Your task to perform on an android device: add a contact Image 0: 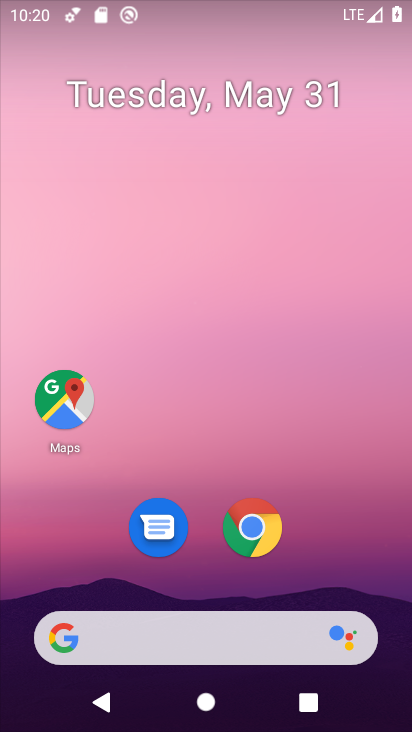
Step 0: drag from (351, 592) to (309, 16)
Your task to perform on an android device: add a contact Image 1: 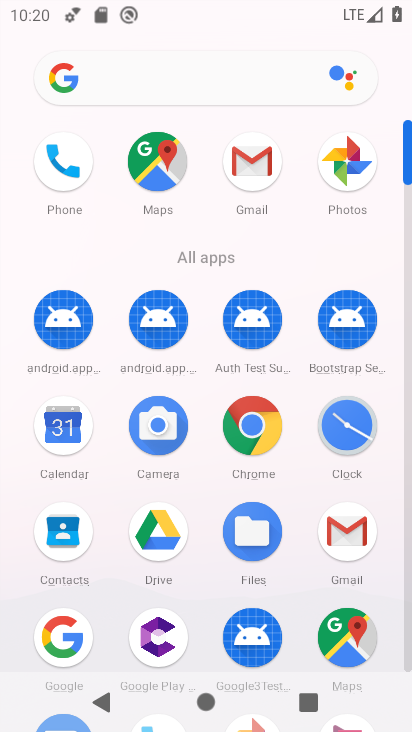
Step 1: click (66, 533)
Your task to perform on an android device: add a contact Image 2: 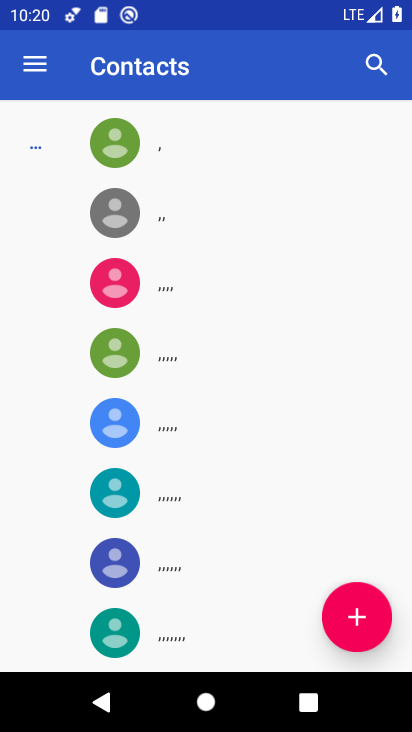
Step 2: click (359, 640)
Your task to perform on an android device: add a contact Image 3: 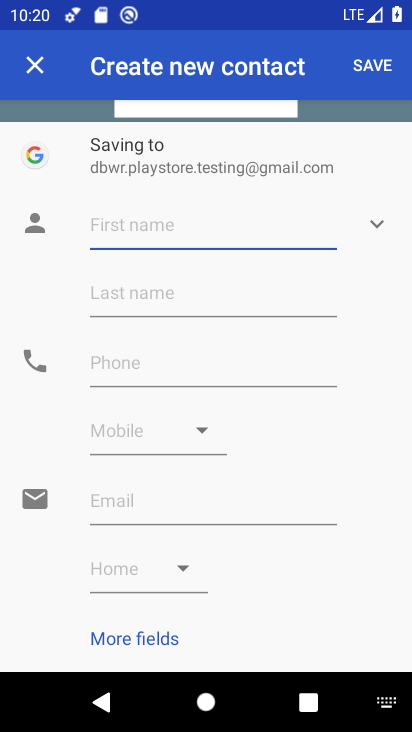
Step 3: type "mahesh"
Your task to perform on an android device: add a contact Image 4: 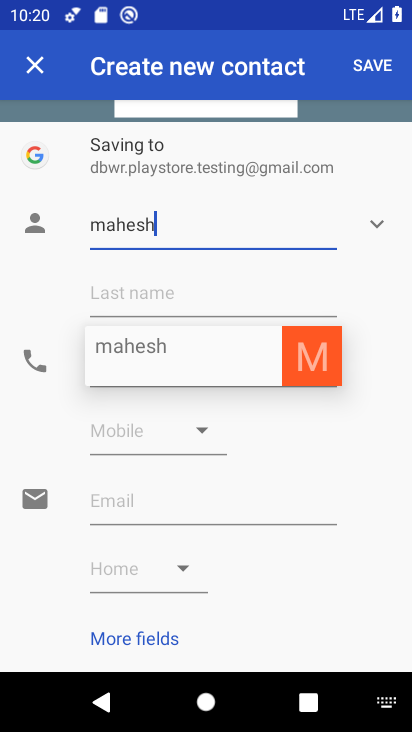
Step 4: click (376, 388)
Your task to perform on an android device: add a contact Image 5: 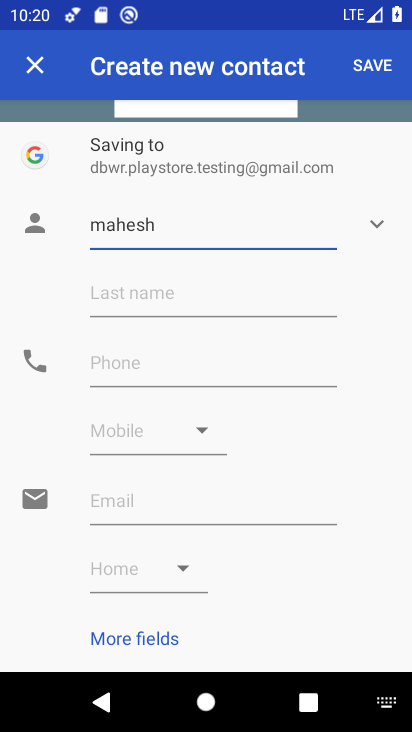
Step 5: click (158, 381)
Your task to perform on an android device: add a contact Image 6: 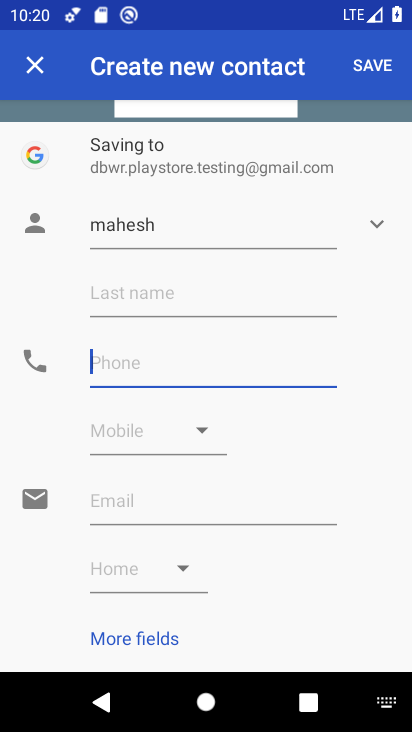
Step 6: type "98776655"
Your task to perform on an android device: add a contact Image 7: 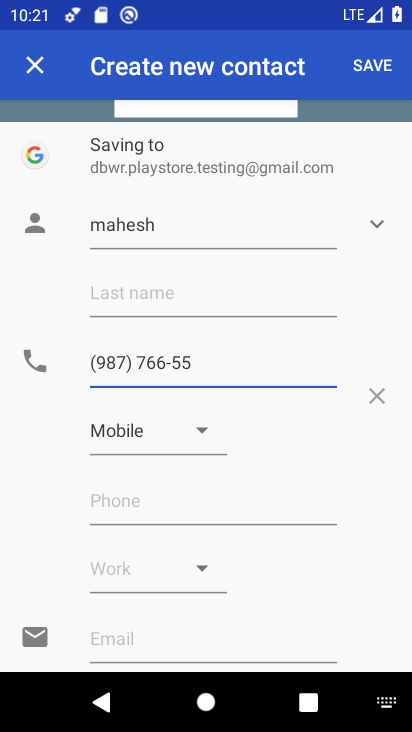
Step 7: click (363, 72)
Your task to perform on an android device: add a contact Image 8: 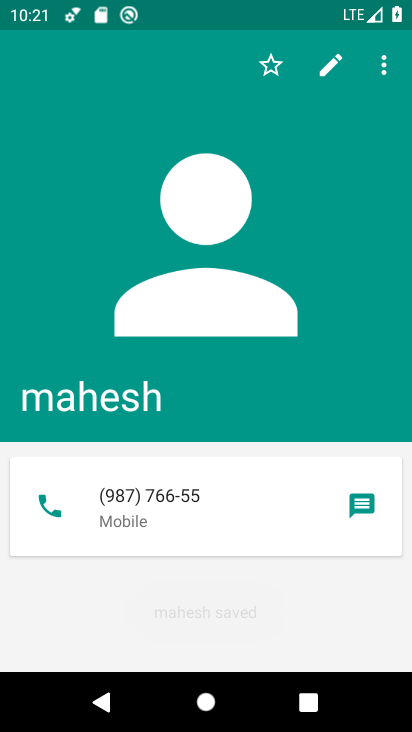
Step 8: task complete